Your task to perform on an android device: change the clock style Image 0: 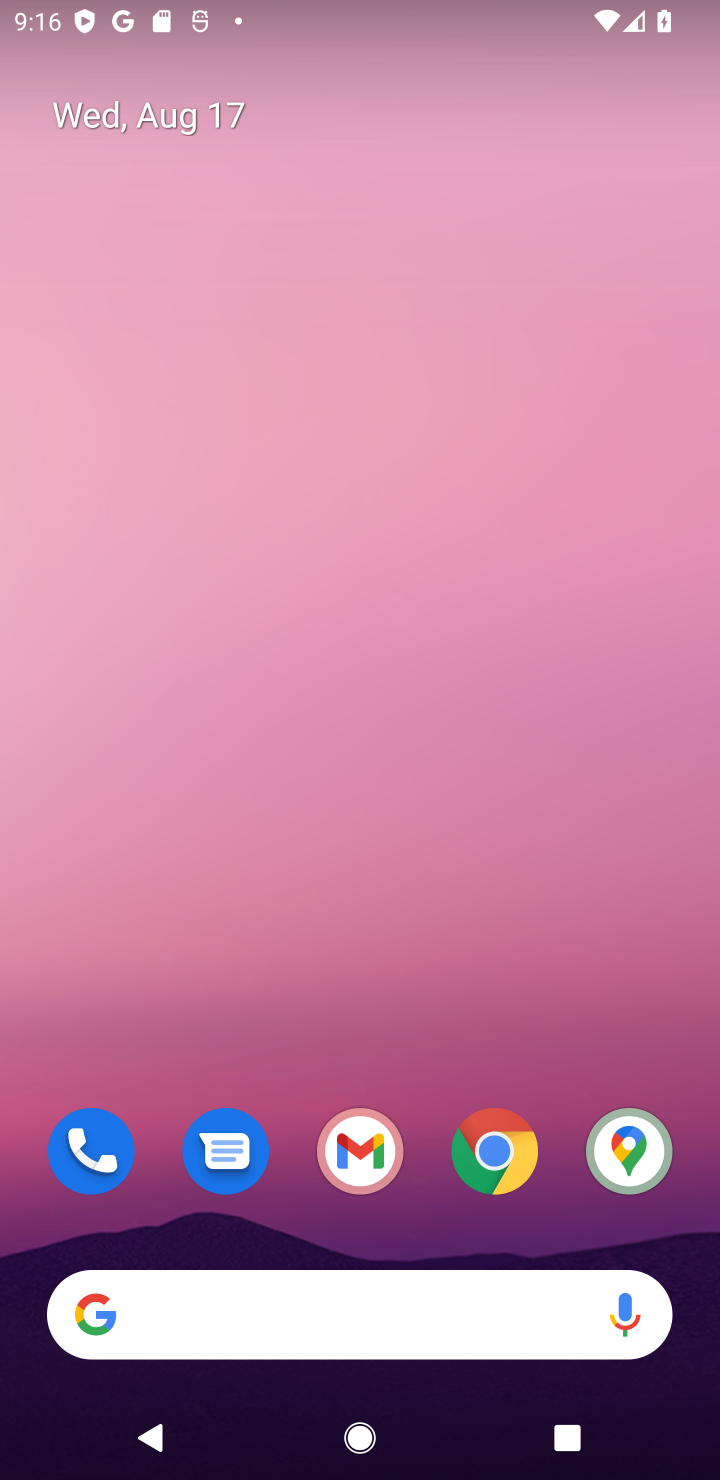
Step 0: drag from (346, 784) to (410, 21)
Your task to perform on an android device: change the clock style Image 1: 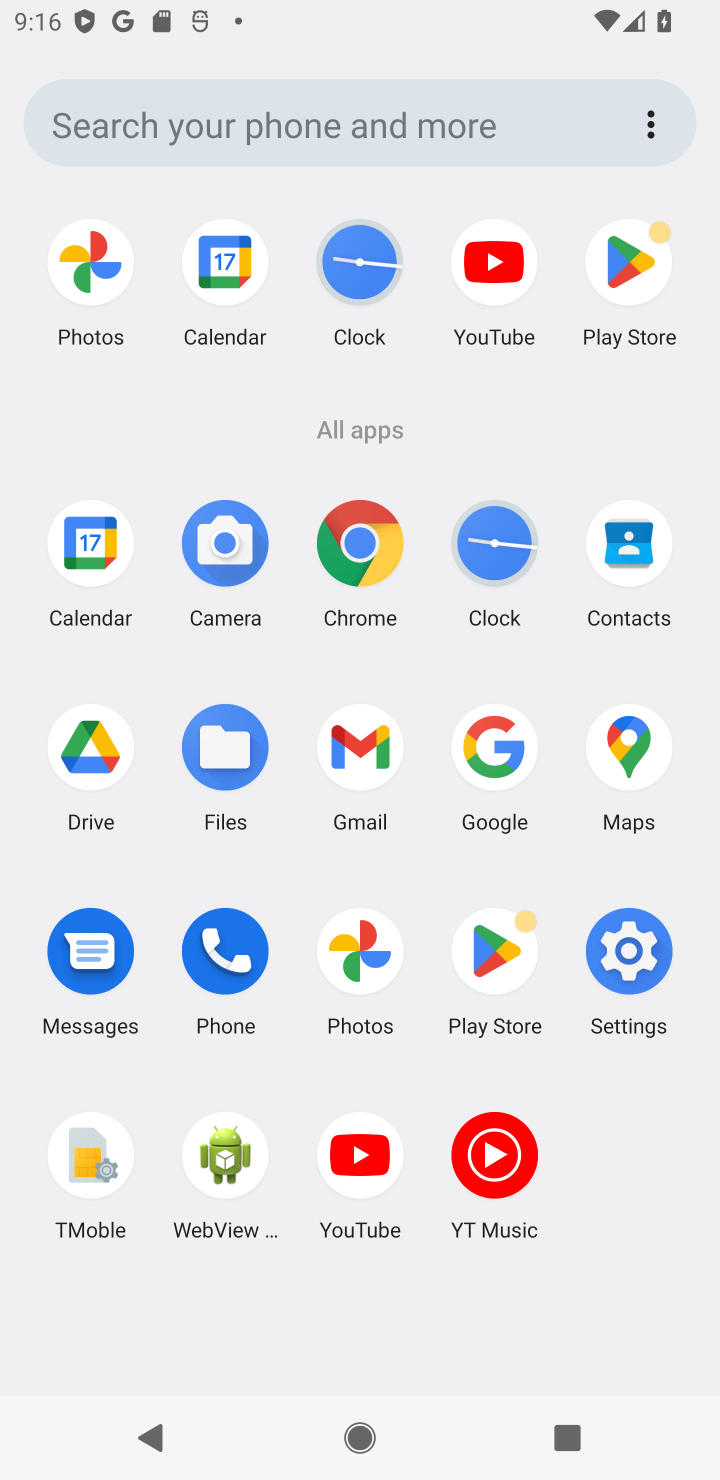
Step 1: click (624, 954)
Your task to perform on an android device: change the clock style Image 2: 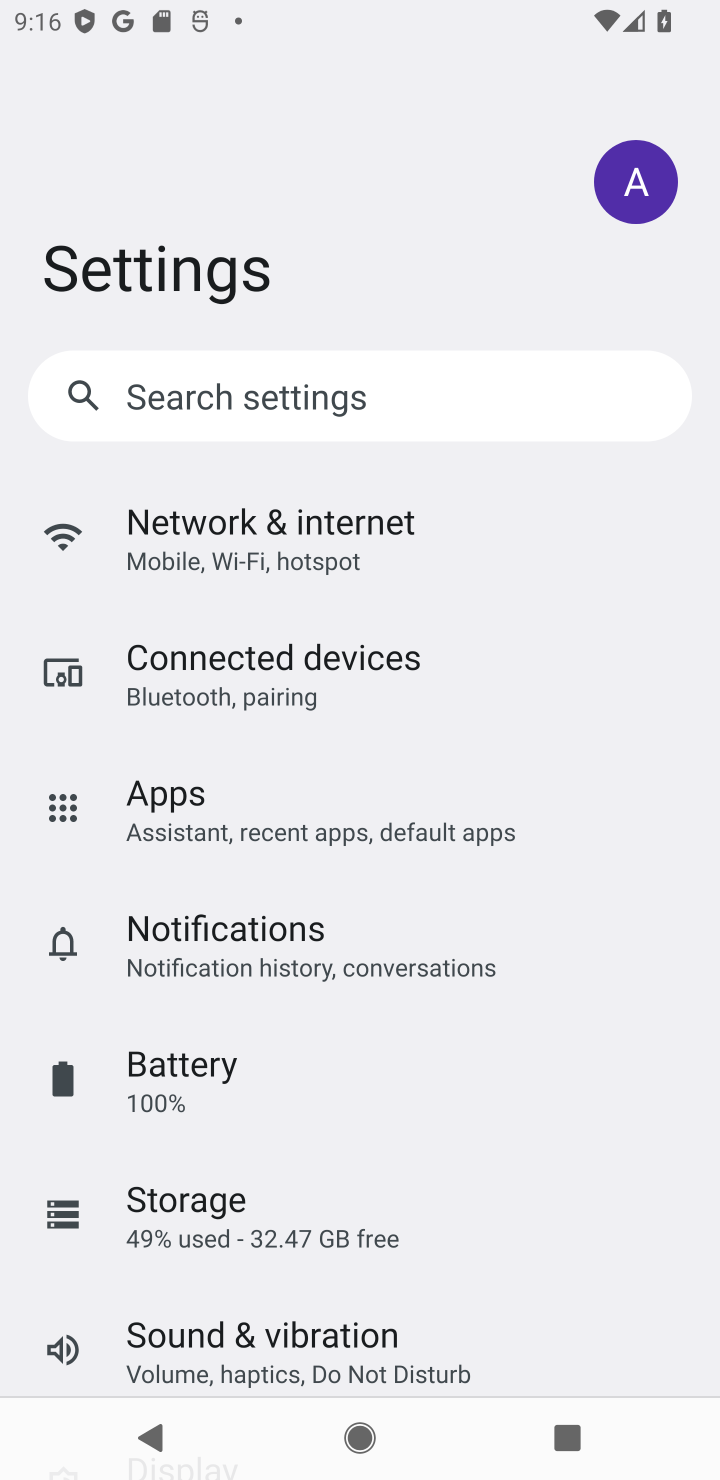
Step 2: press back button
Your task to perform on an android device: change the clock style Image 3: 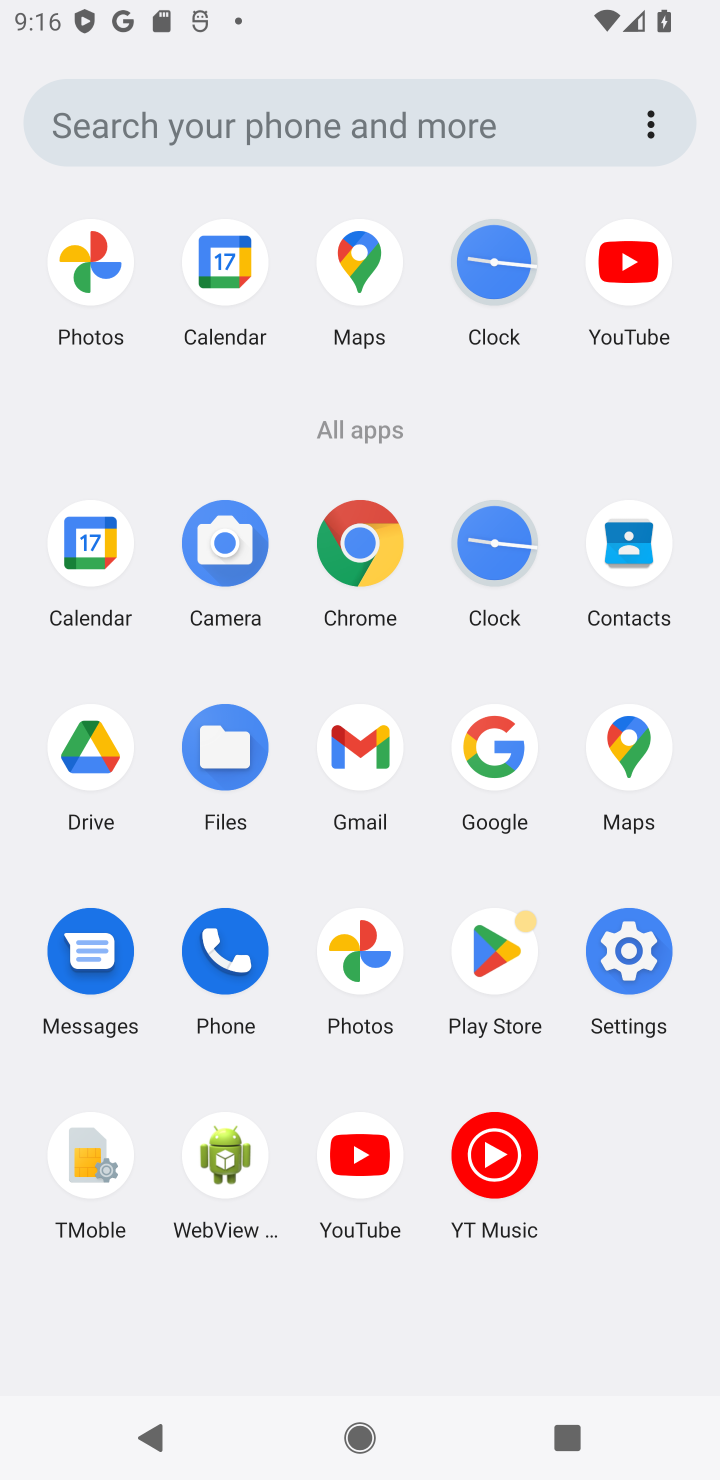
Step 3: click (476, 564)
Your task to perform on an android device: change the clock style Image 4: 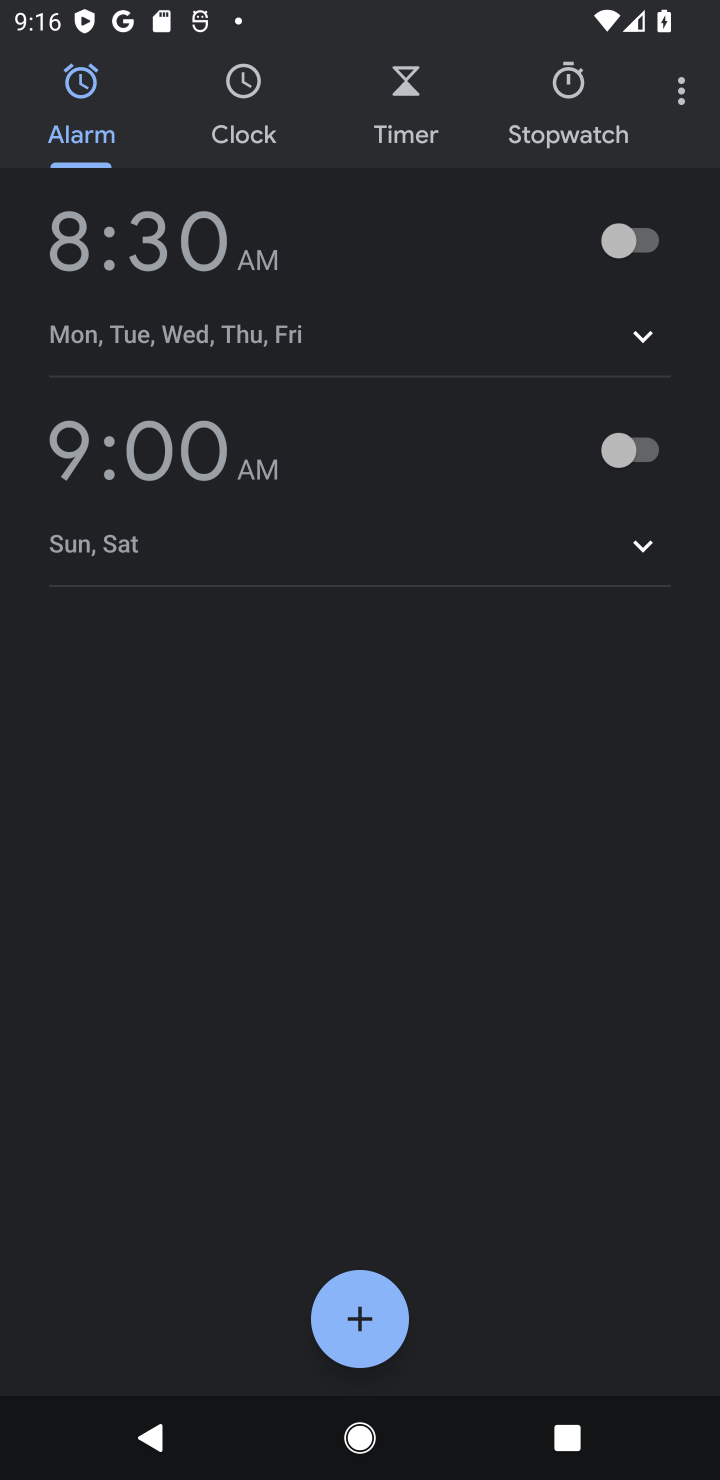
Step 4: click (688, 108)
Your task to perform on an android device: change the clock style Image 5: 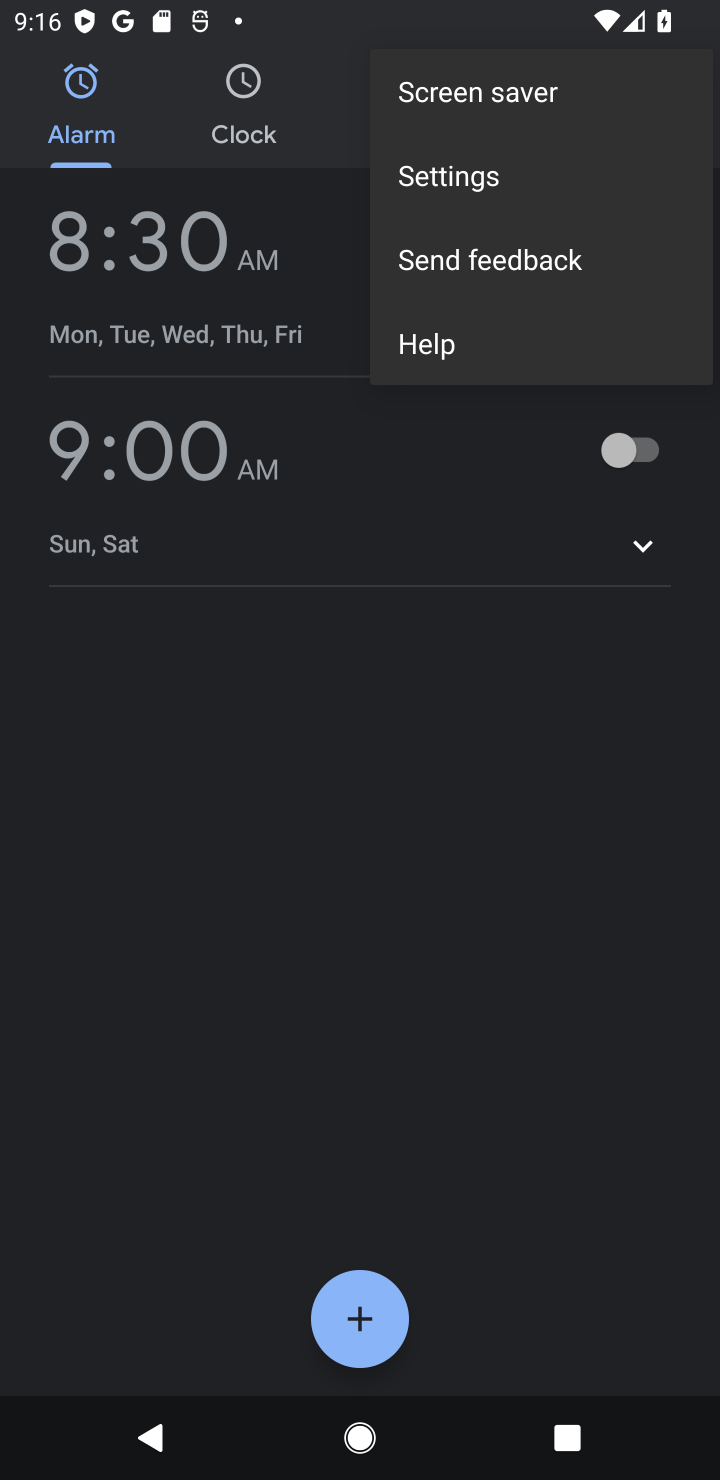
Step 5: click (466, 169)
Your task to perform on an android device: change the clock style Image 6: 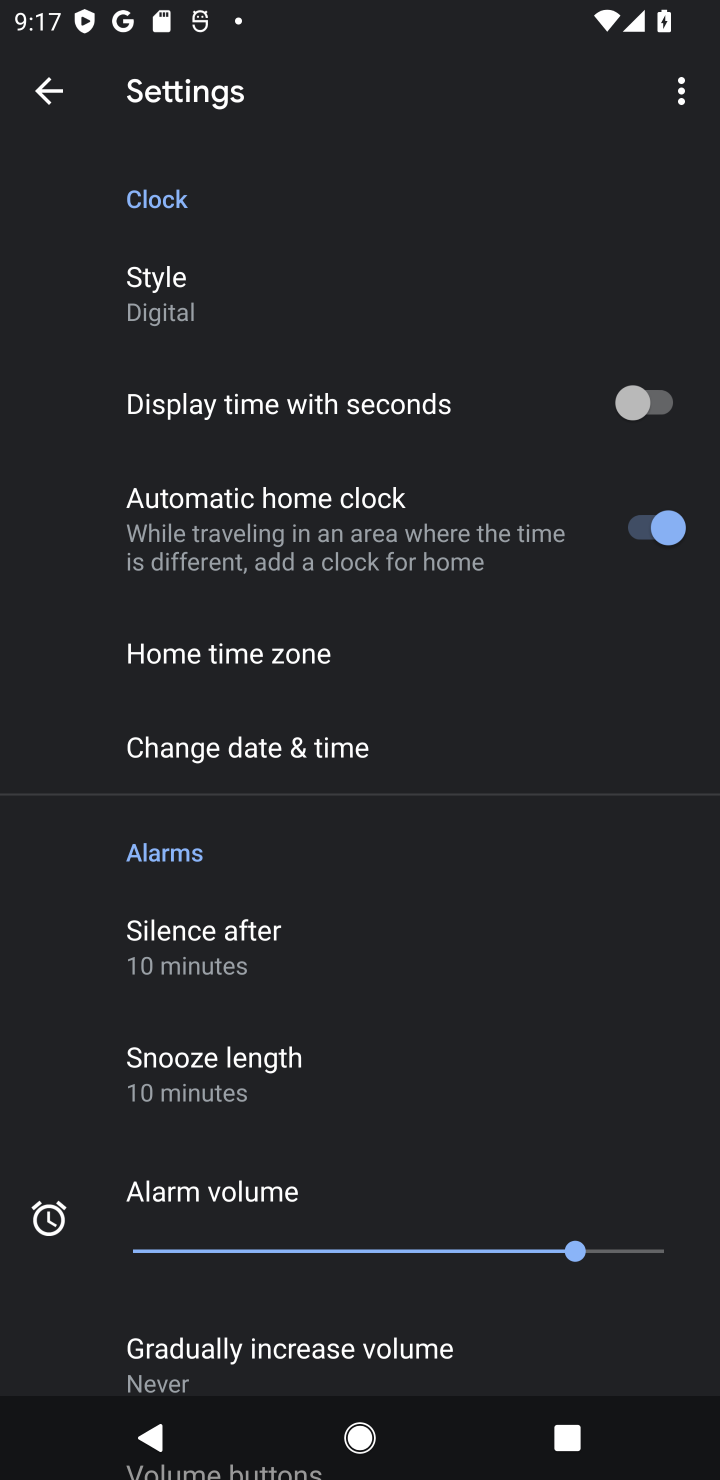
Step 6: click (154, 312)
Your task to perform on an android device: change the clock style Image 7: 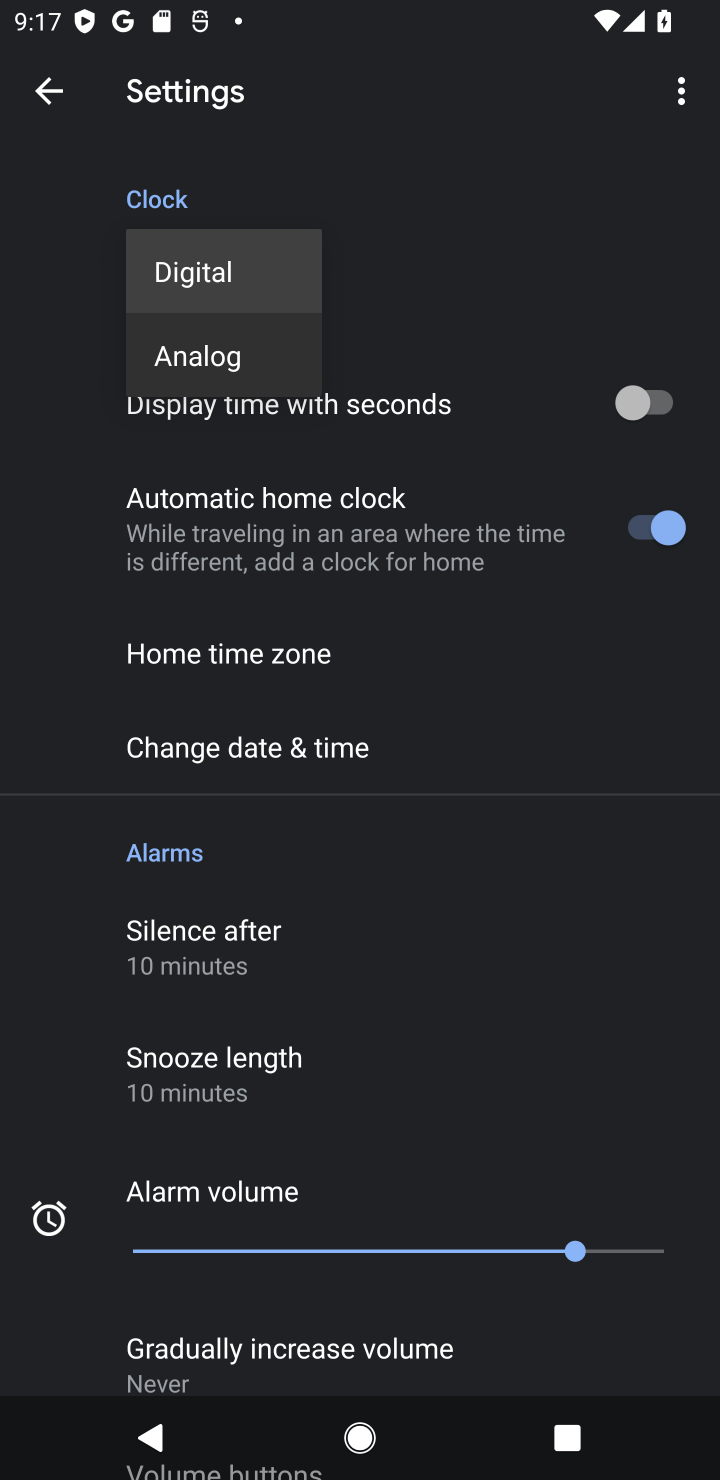
Step 7: click (223, 285)
Your task to perform on an android device: change the clock style Image 8: 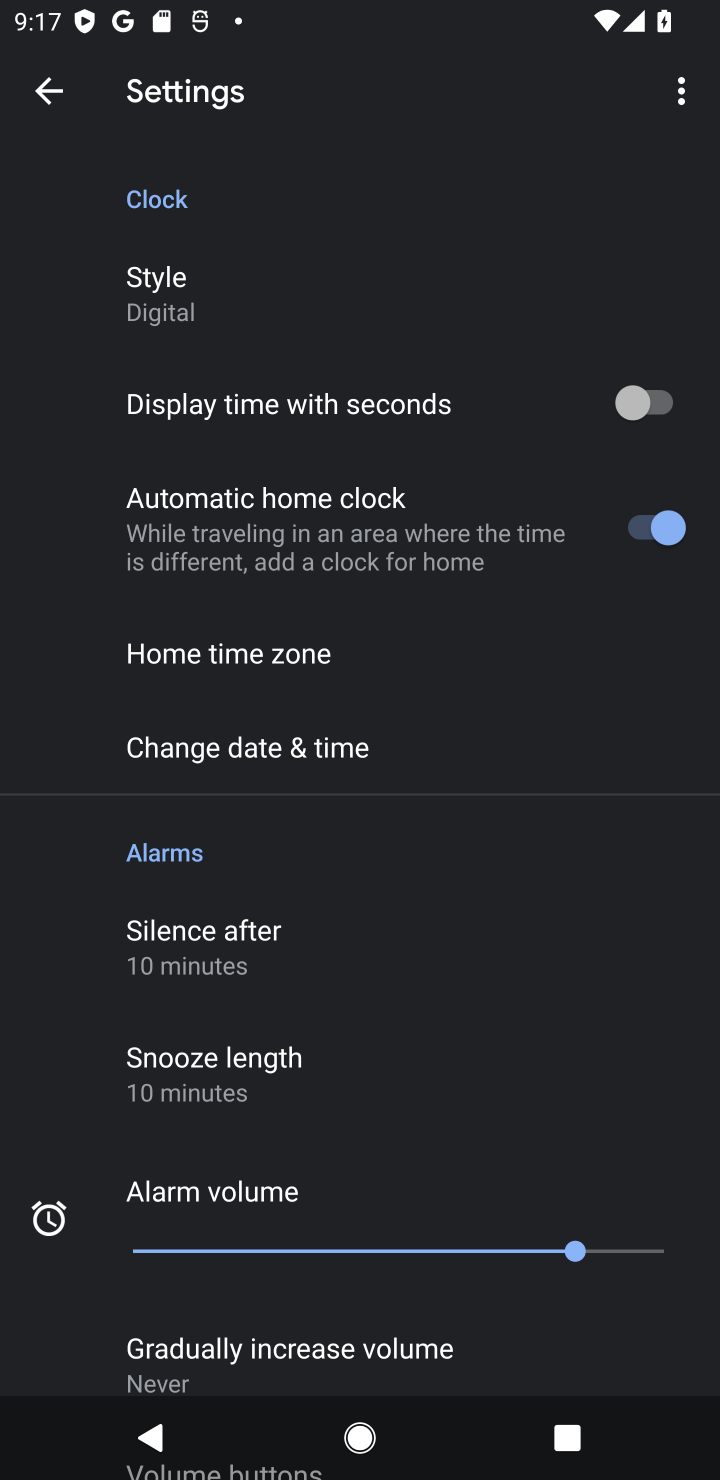
Step 8: task complete